Your task to perform on an android device: Open sound settings Image 0: 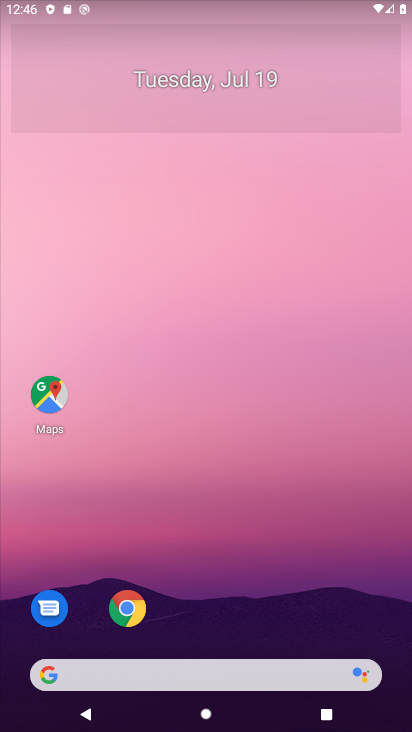
Step 0: drag from (258, 620) to (311, 255)
Your task to perform on an android device: Open sound settings Image 1: 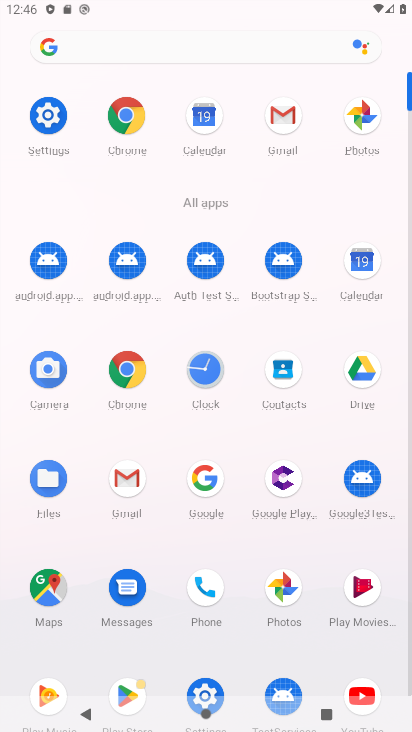
Step 1: click (206, 684)
Your task to perform on an android device: Open sound settings Image 2: 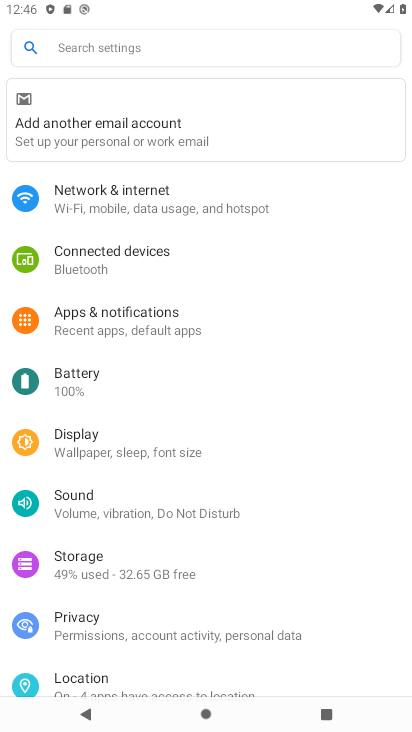
Step 2: click (83, 496)
Your task to perform on an android device: Open sound settings Image 3: 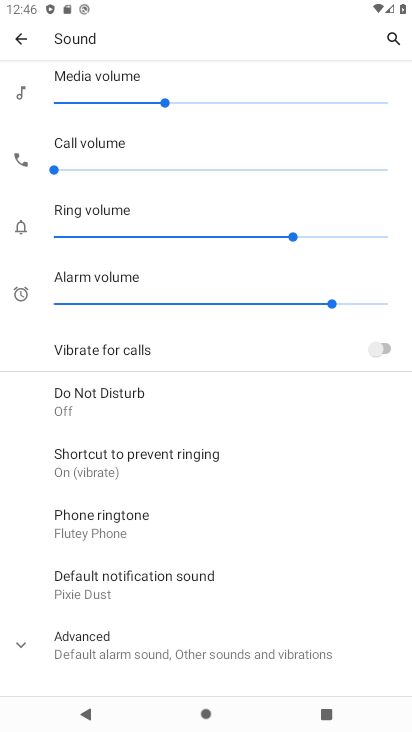
Step 3: task complete